Your task to perform on an android device: uninstall "Microsoft Outlook" Image 0: 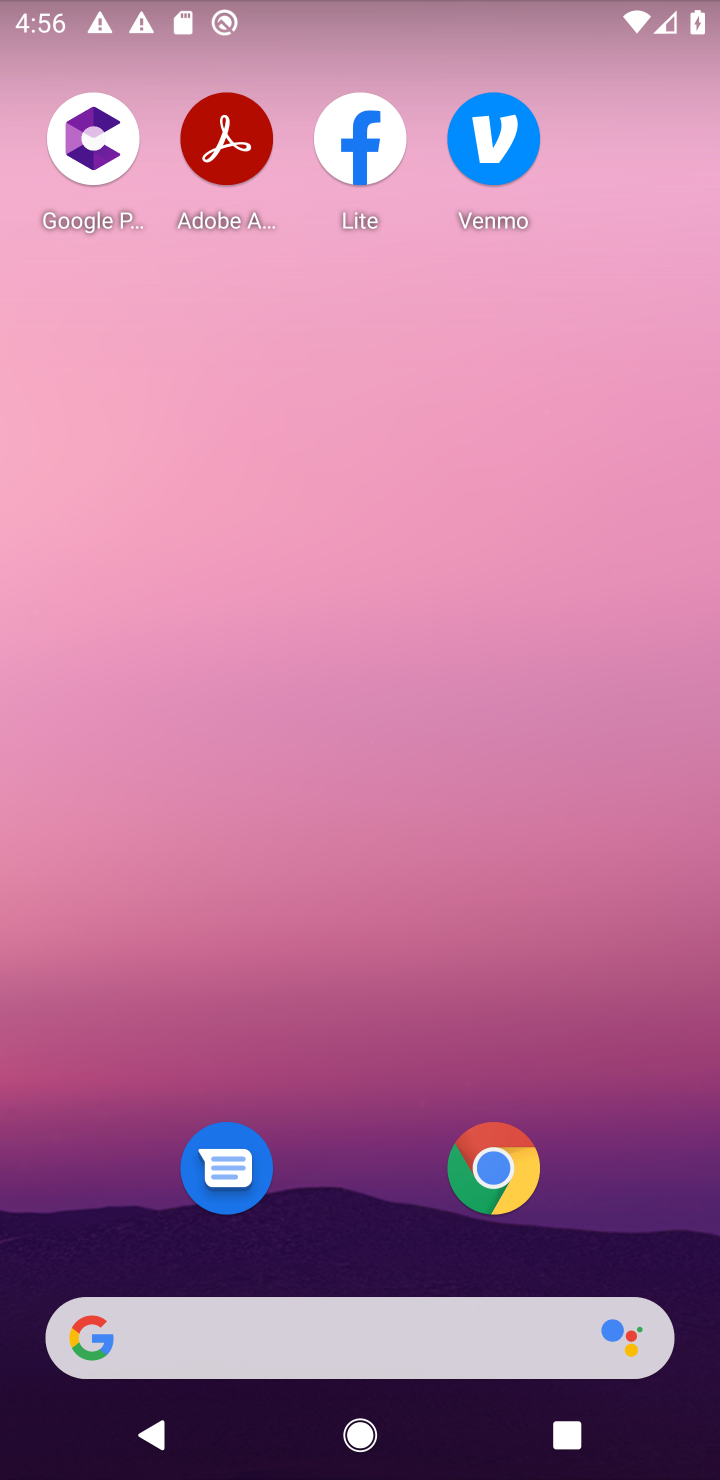
Step 0: drag from (358, 1166) to (402, 62)
Your task to perform on an android device: uninstall "Microsoft Outlook" Image 1: 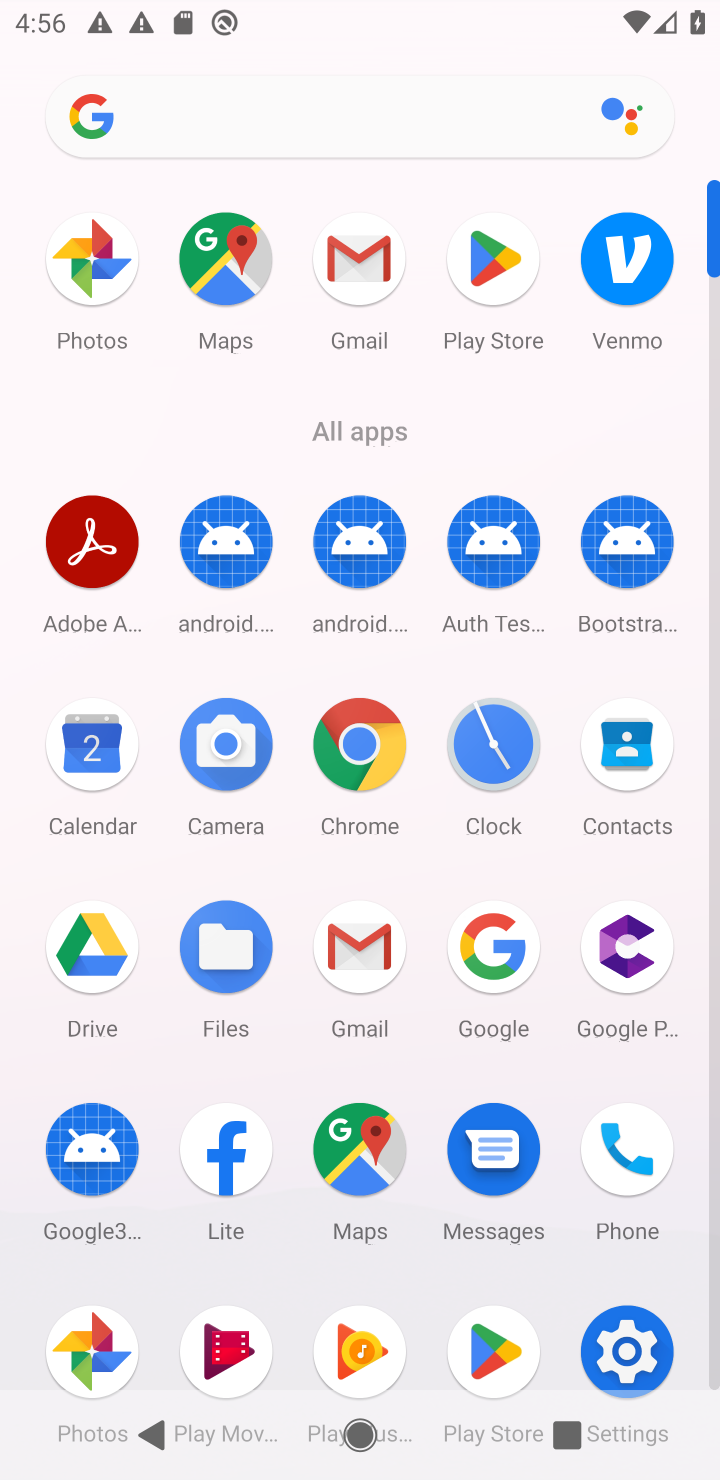
Step 1: click (502, 294)
Your task to perform on an android device: uninstall "Microsoft Outlook" Image 2: 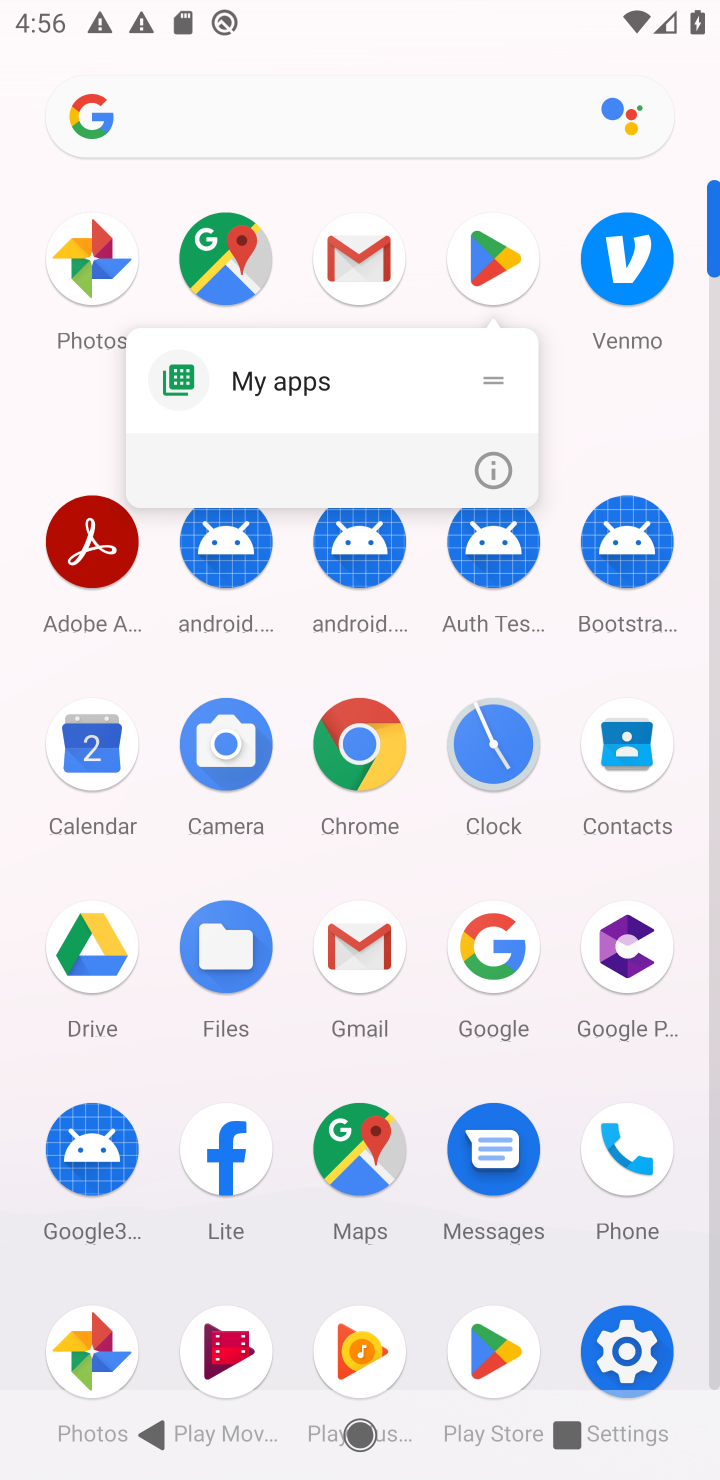
Step 2: click (486, 247)
Your task to perform on an android device: uninstall "Microsoft Outlook" Image 3: 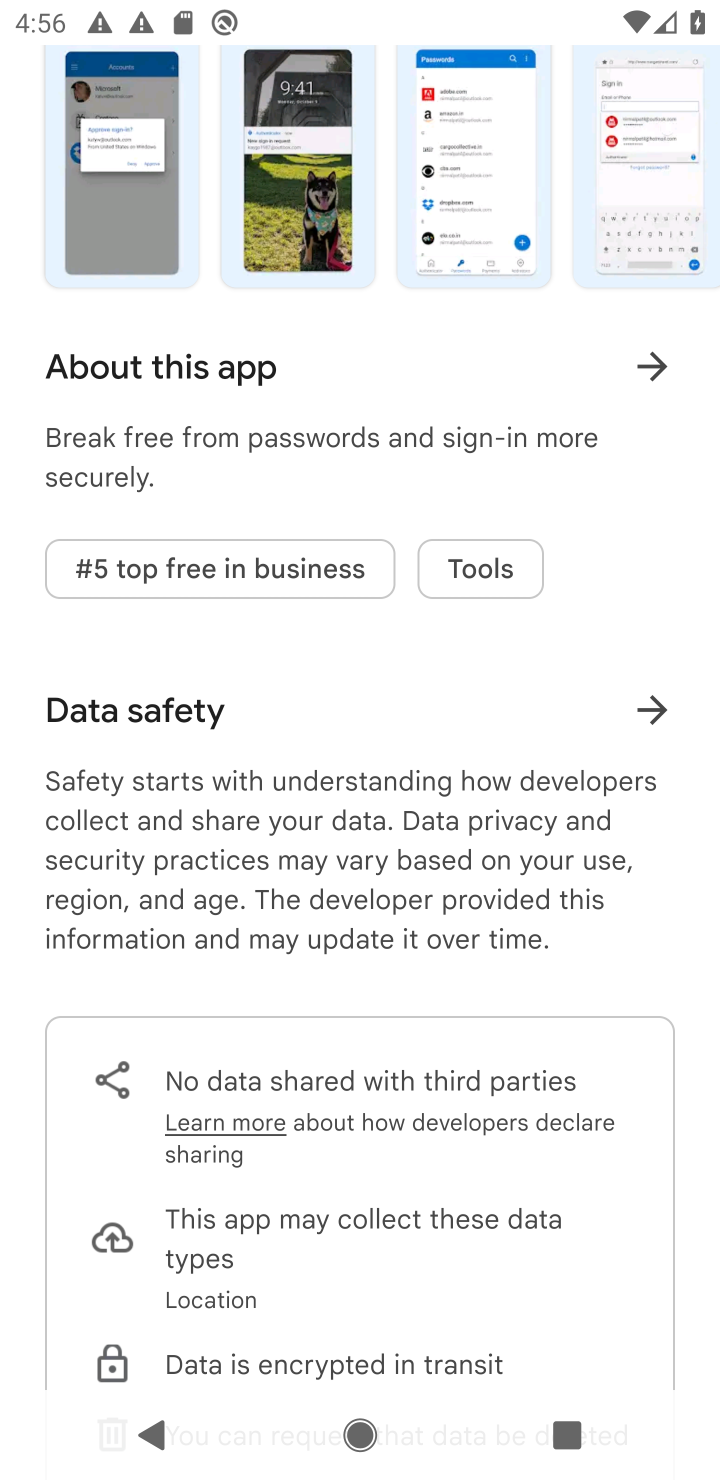
Step 3: drag from (393, 340) to (402, 975)
Your task to perform on an android device: uninstall "Microsoft Outlook" Image 4: 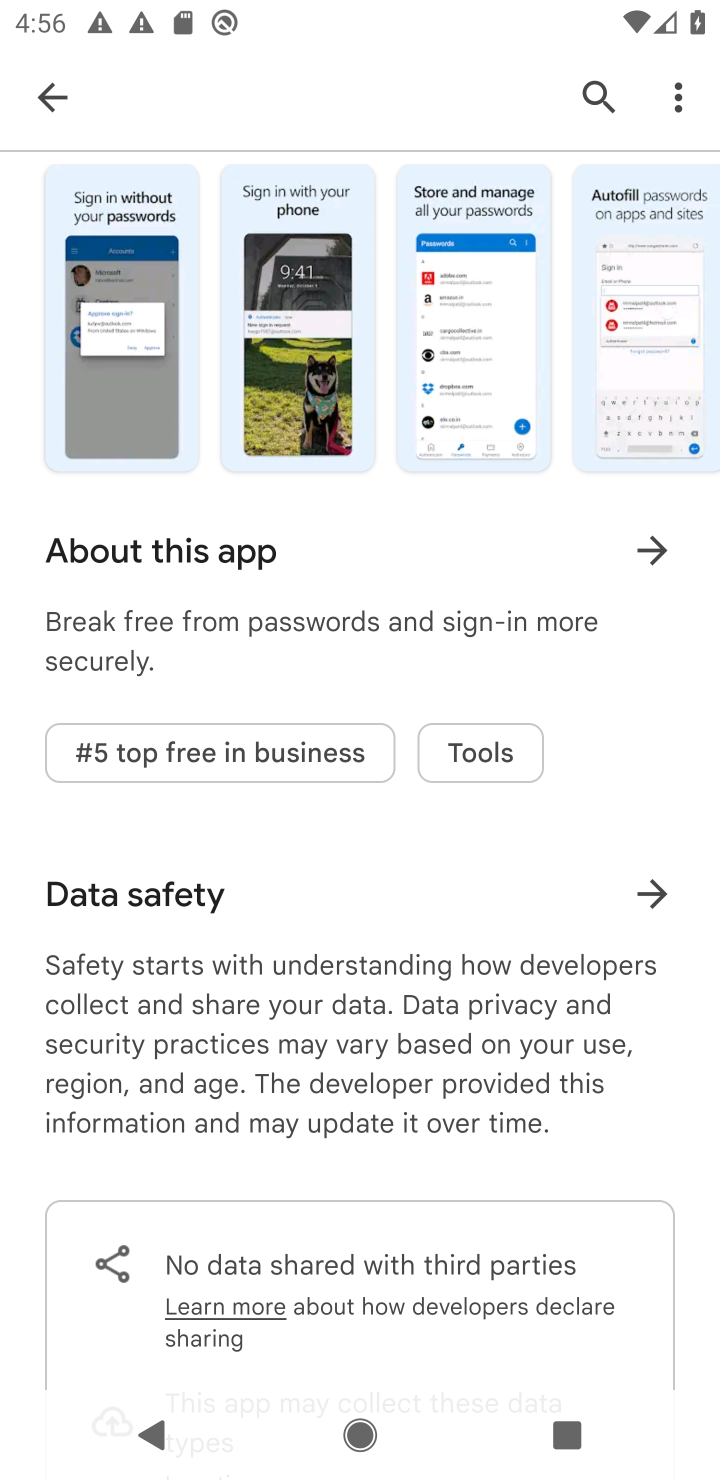
Step 4: drag from (290, 622) to (316, 1081)
Your task to perform on an android device: uninstall "Microsoft Outlook" Image 5: 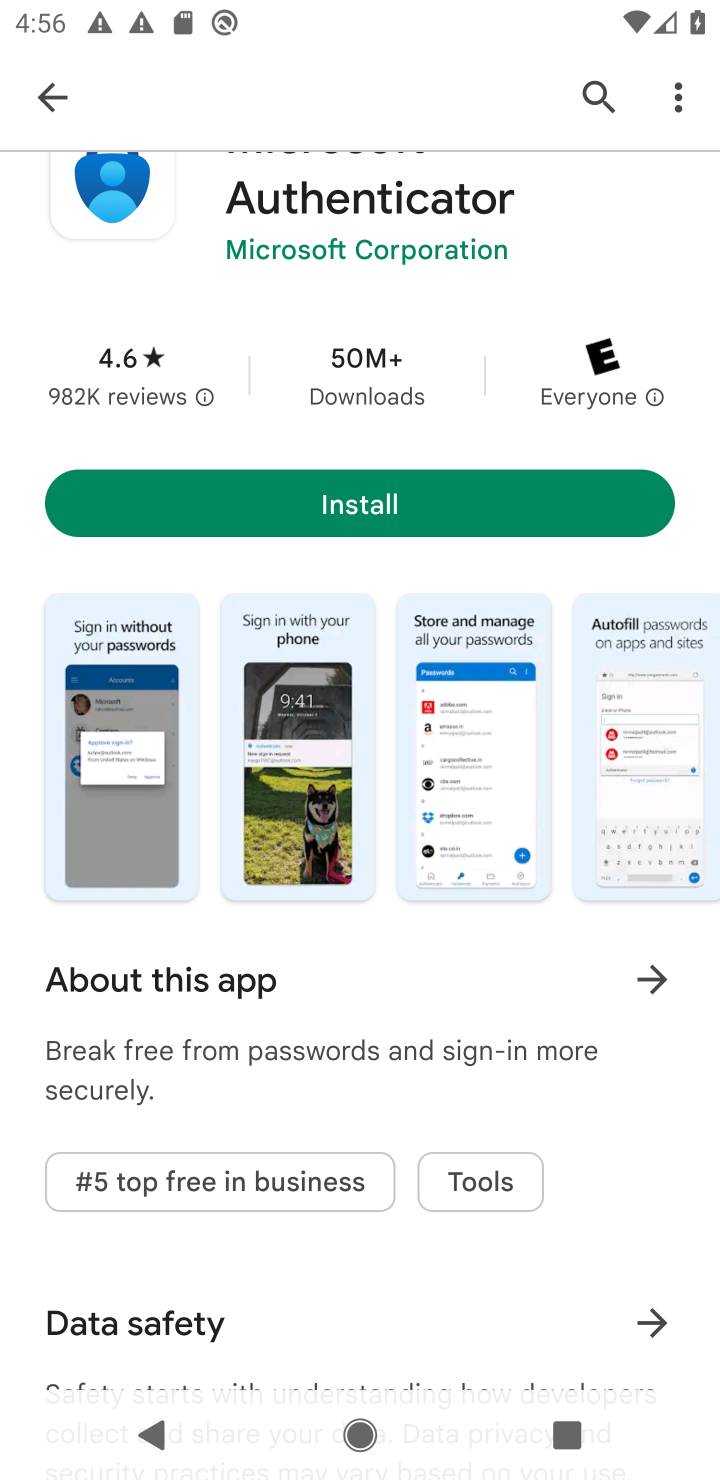
Step 5: drag from (313, 710) to (276, 1307)
Your task to perform on an android device: uninstall "Microsoft Outlook" Image 6: 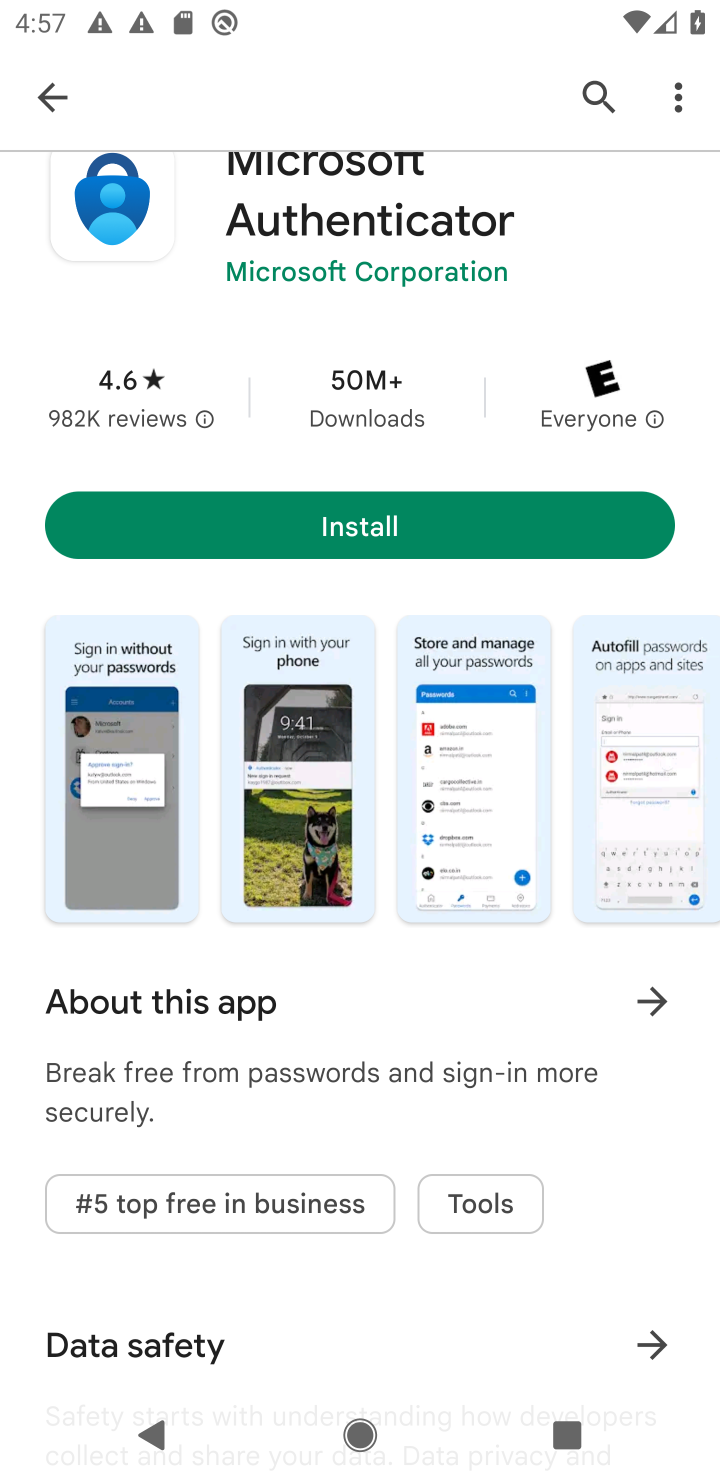
Step 6: click (22, 83)
Your task to perform on an android device: uninstall "Microsoft Outlook" Image 7: 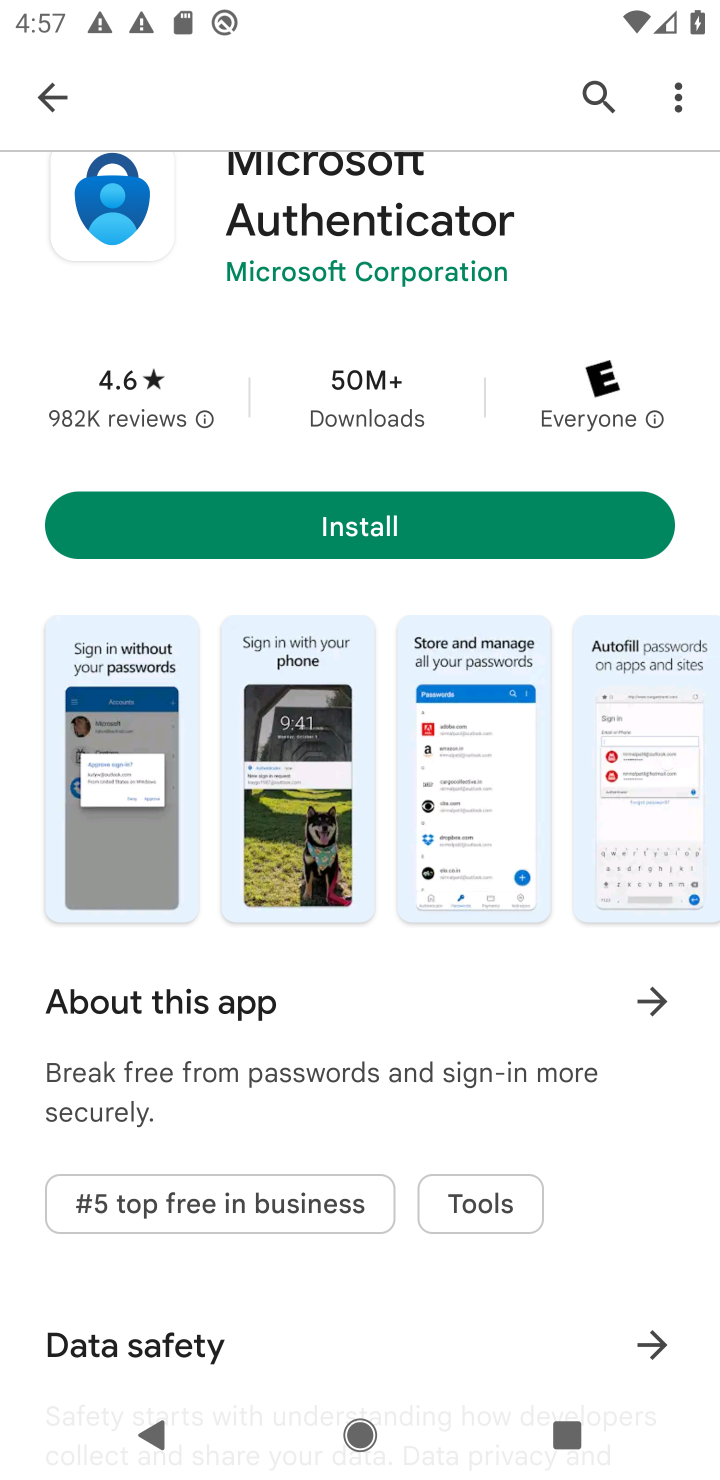
Step 7: drag from (259, 272) to (257, 544)
Your task to perform on an android device: uninstall "Microsoft Outlook" Image 8: 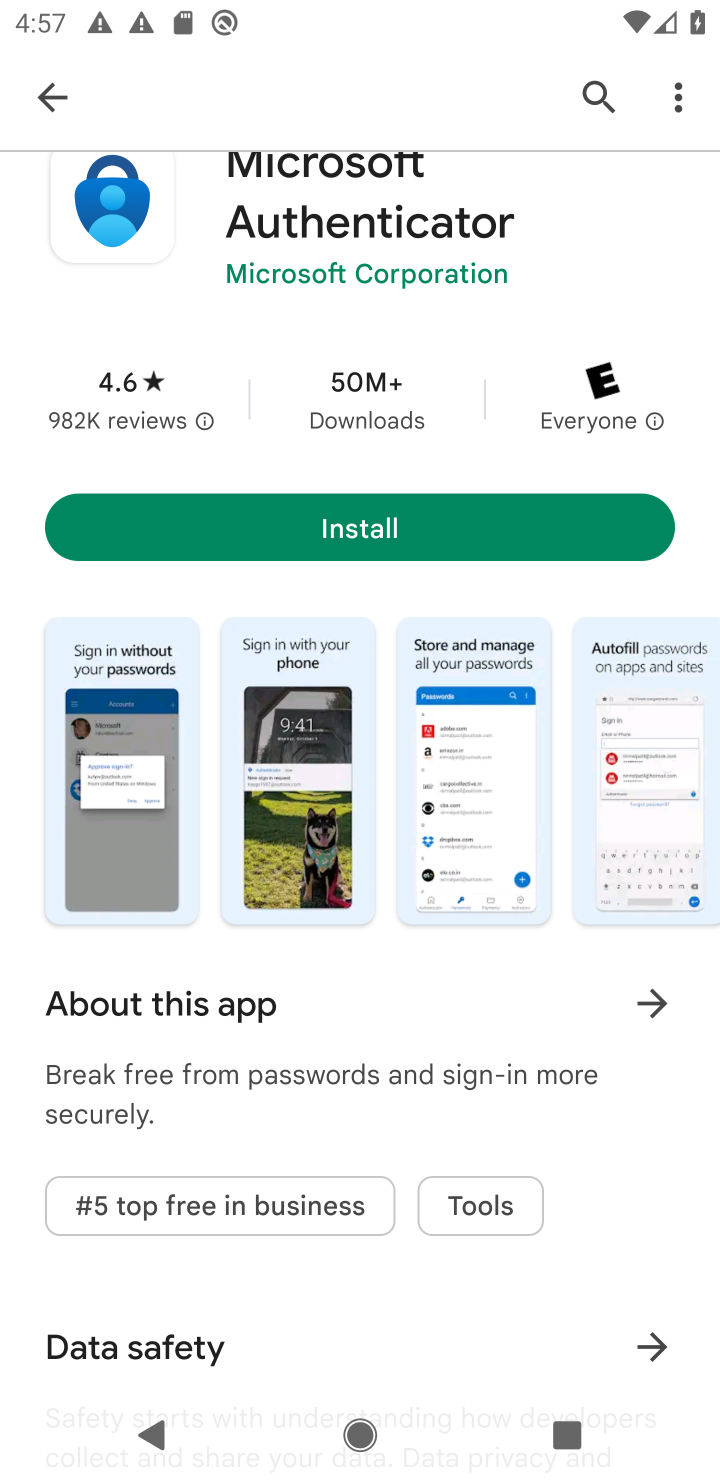
Step 8: click (51, 104)
Your task to perform on an android device: uninstall "Microsoft Outlook" Image 9: 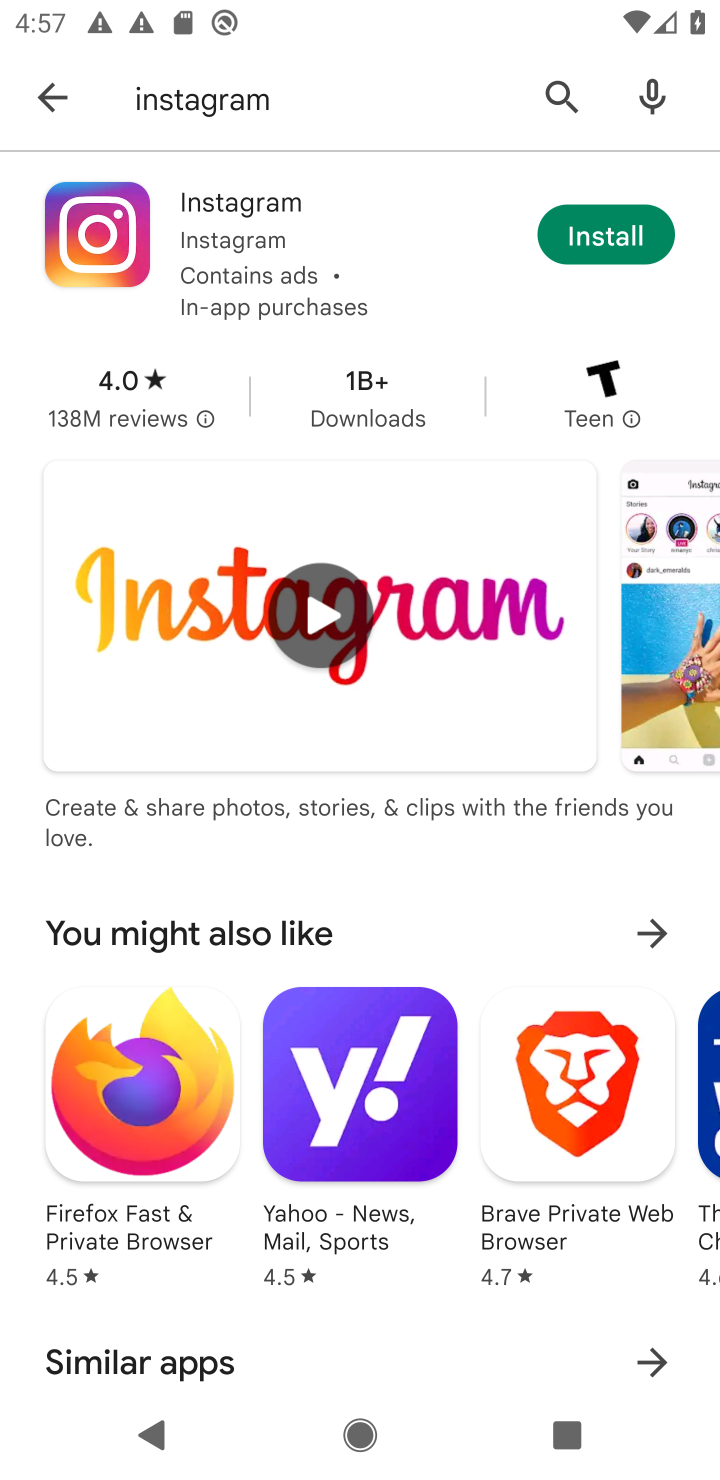
Step 9: click (297, 104)
Your task to perform on an android device: uninstall "Microsoft Outlook" Image 10: 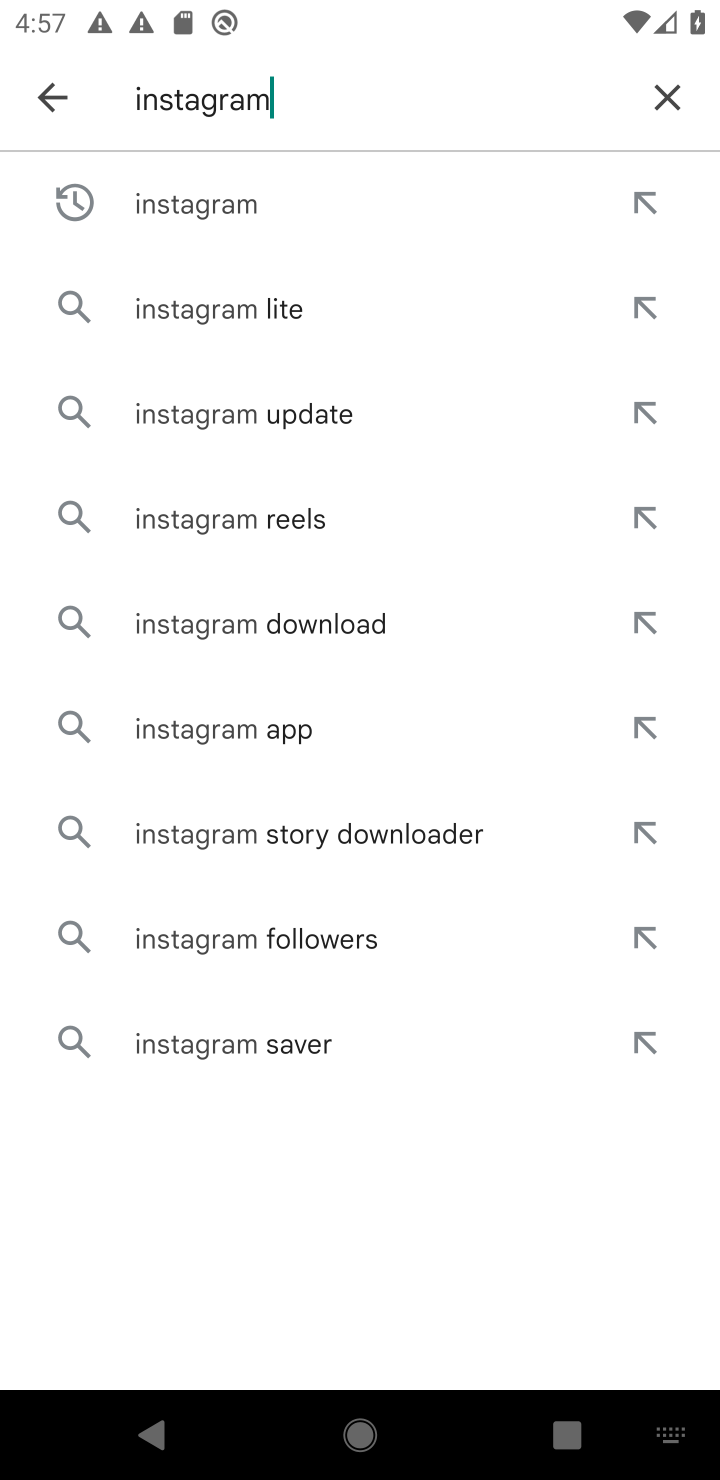
Step 10: click (659, 91)
Your task to perform on an android device: uninstall "Microsoft Outlook" Image 11: 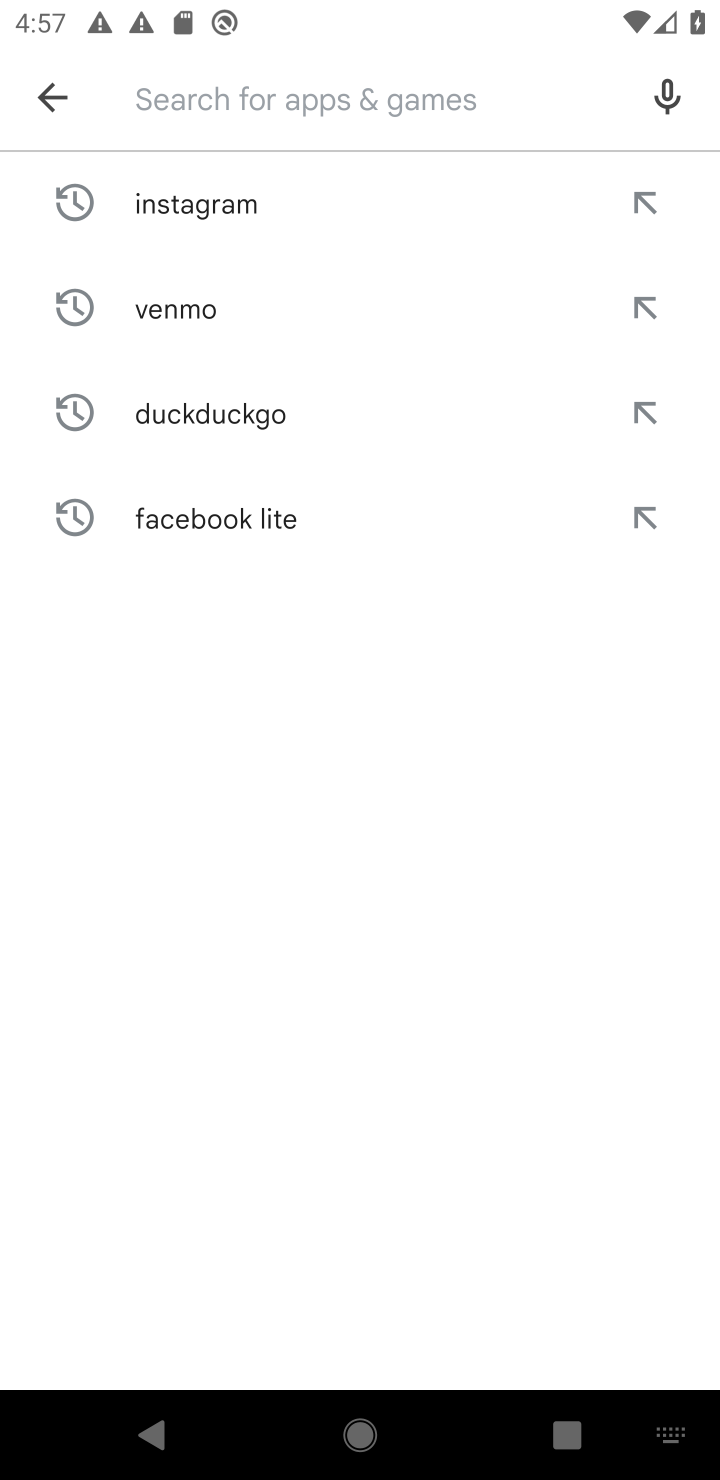
Step 11: type "microsoft outlook"
Your task to perform on an android device: uninstall "Microsoft Outlook" Image 12: 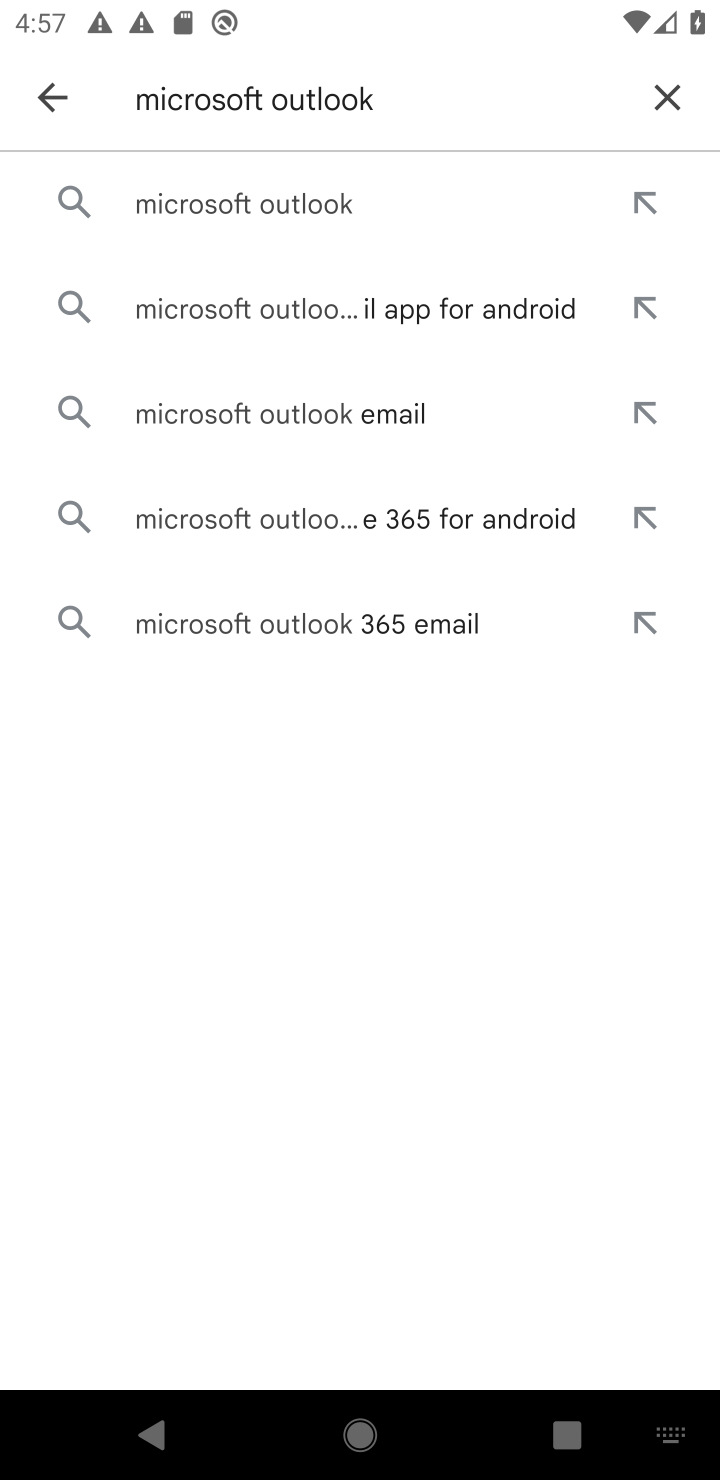
Step 12: click (336, 204)
Your task to perform on an android device: uninstall "Microsoft Outlook" Image 13: 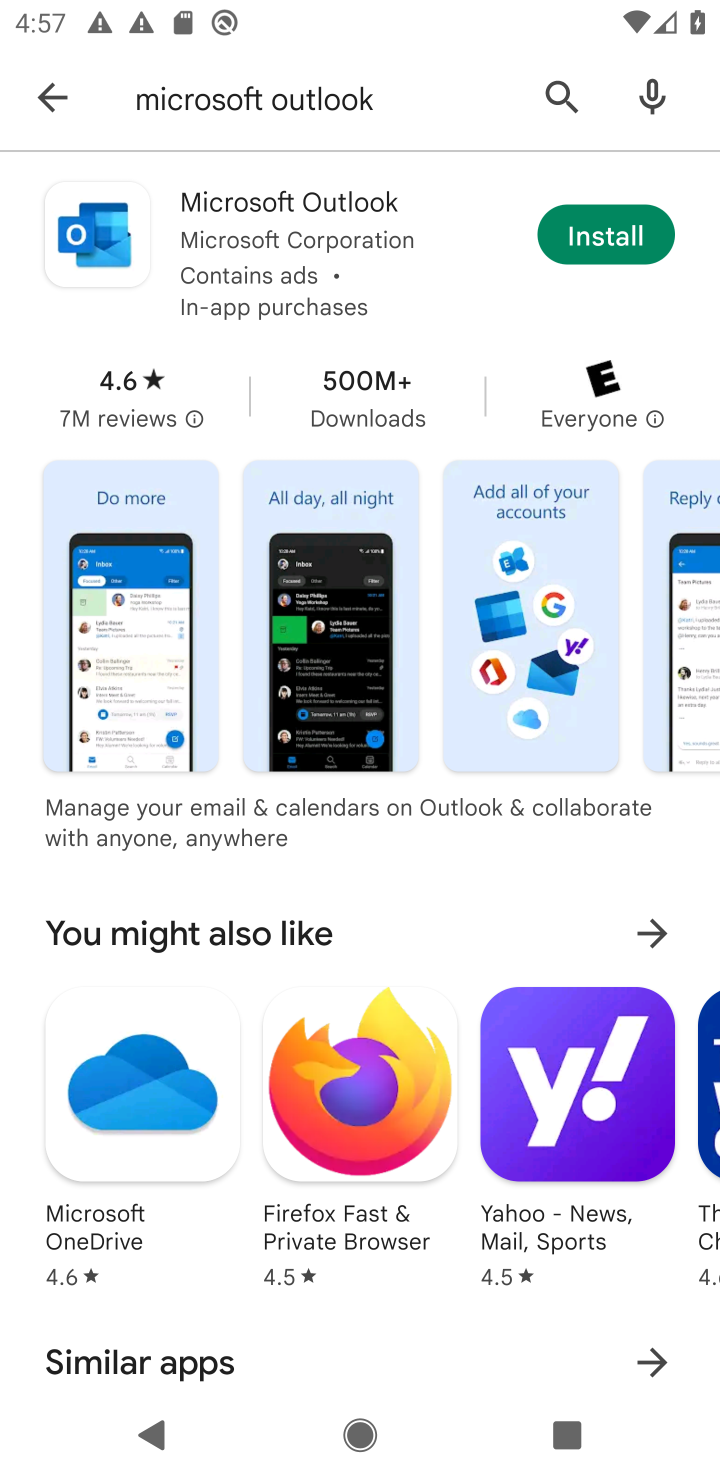
Step 13: task complete